Your task to perform on an android device: open a bookmark in the chrome app Image 0: 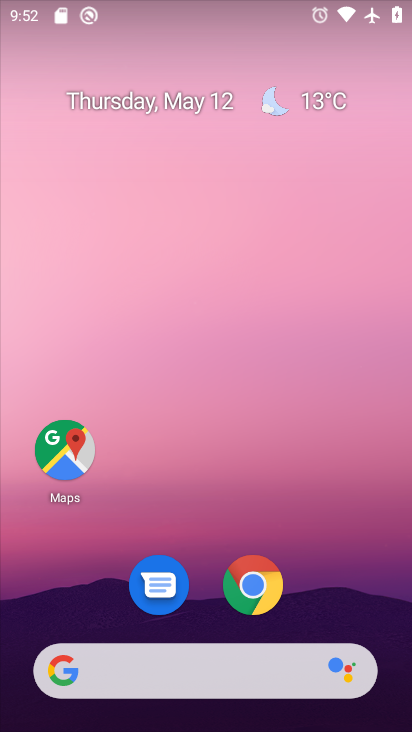
Step 0: click (254, 589)
Your task to perform on an android device: open a bookmark in the chrome app Image 1: 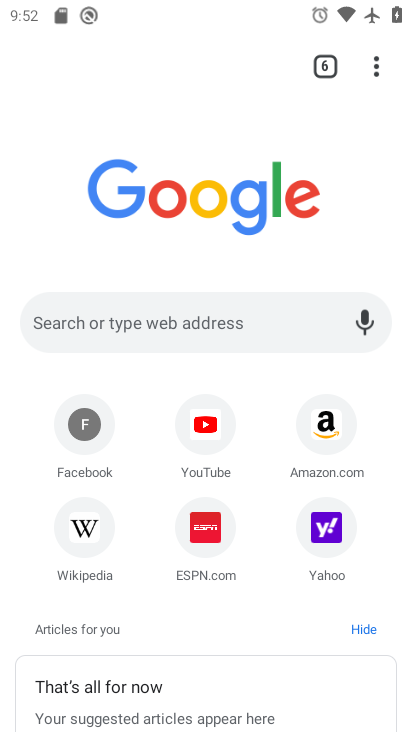
Step 1: click (373, 66)
Your task to perform on an android device: open a bookmark in the chrome app Image 2: 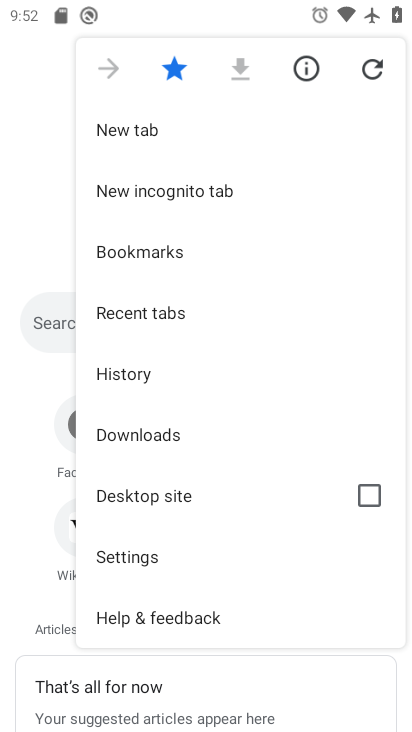
Step 2: click (197, 241)
Your task to perform on an android device: open a bookmark in the chrome app Image 3: 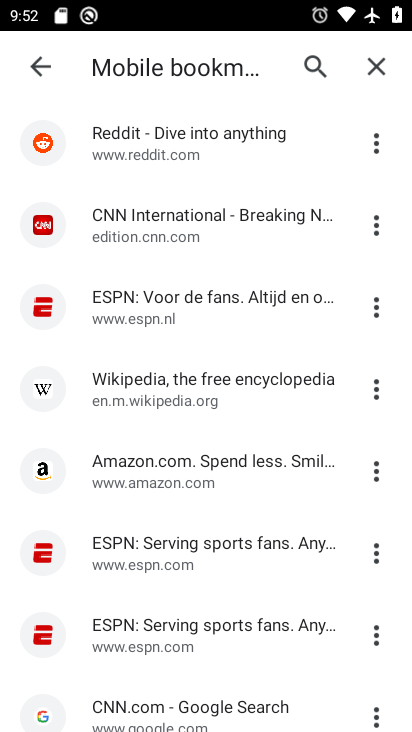
Step 3: click (201, 298)
Your task to perform on an android device: open a bookmark in the chrome app Image 4: 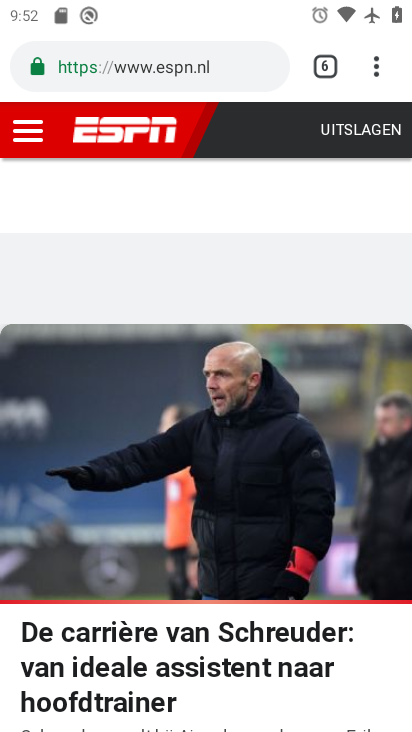
Step 4: task complete